Your task to perform on an android device: set the stopwatch Image 0: 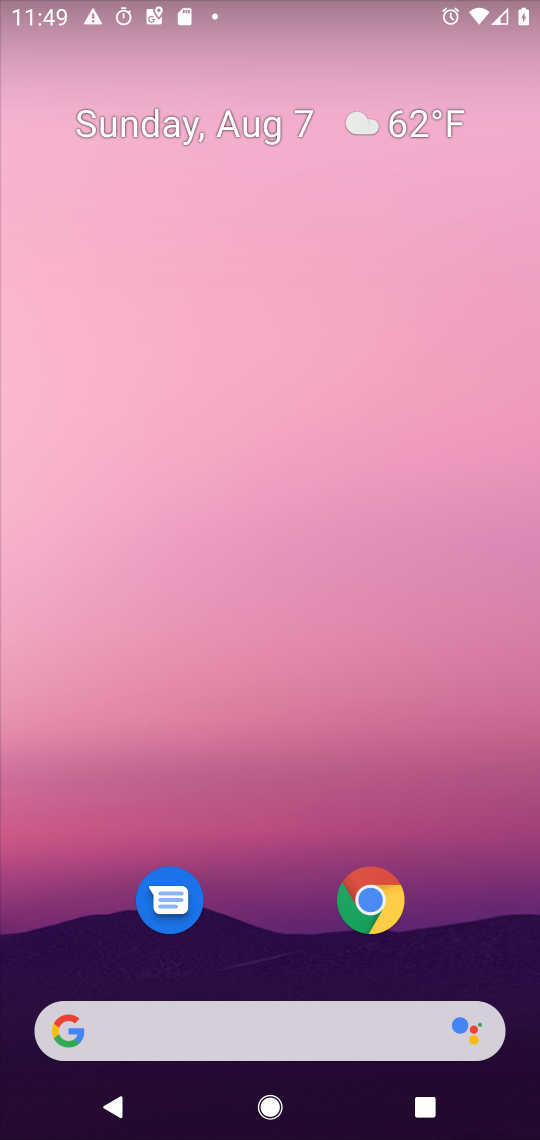
Step 0: press home button
Your task to perform on an android device: set the stopwatch Image 1: 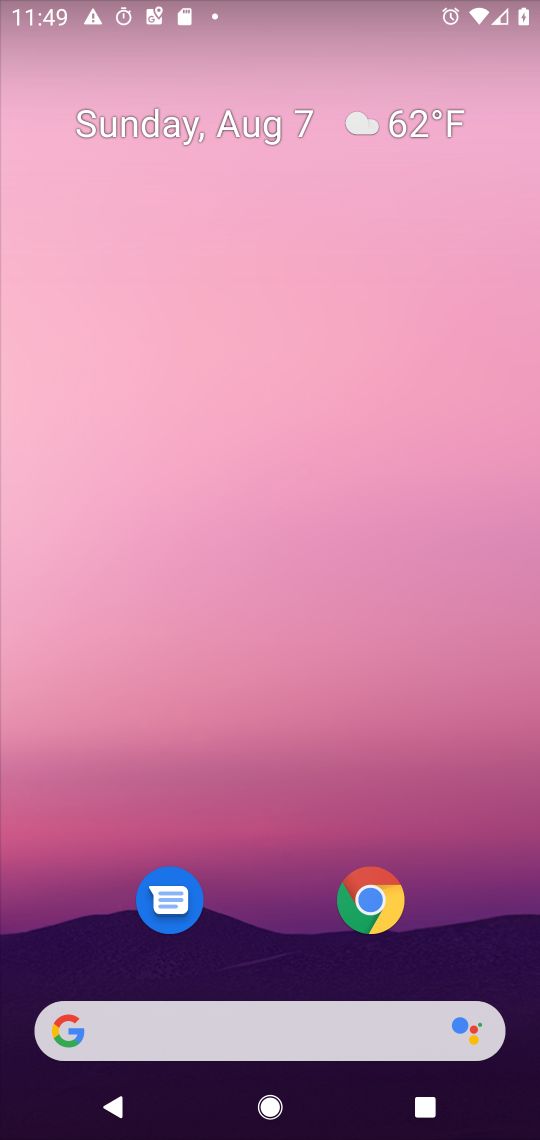
Step 1: drag from (277, 957) to (279, 5)
Your task to perform on an android device: set the stopwatch Image 2: 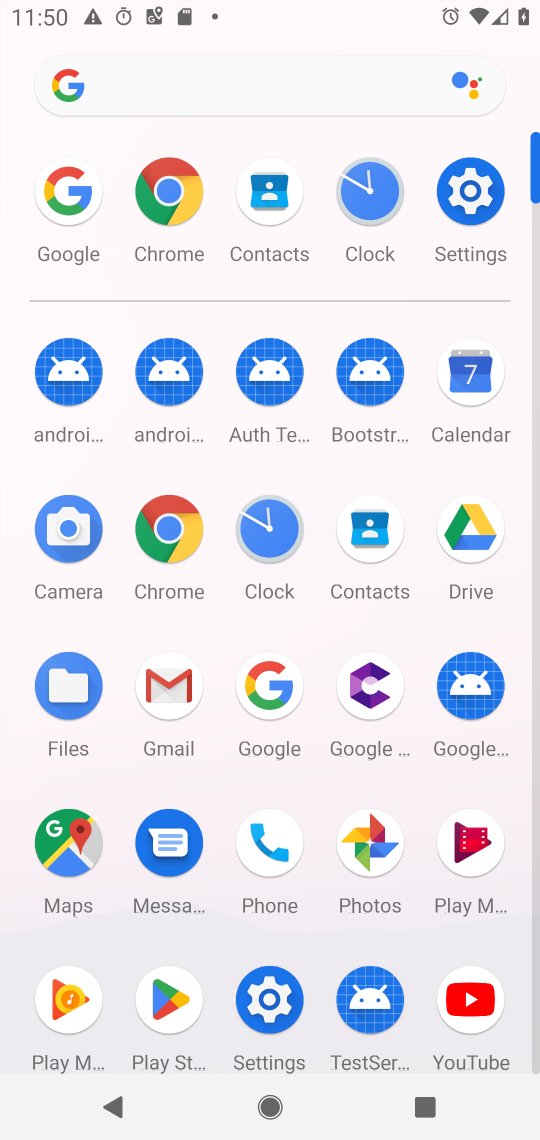
Step 2: click (265, 509)
Your task to perform on an android device: set the stopwatch Image 3: 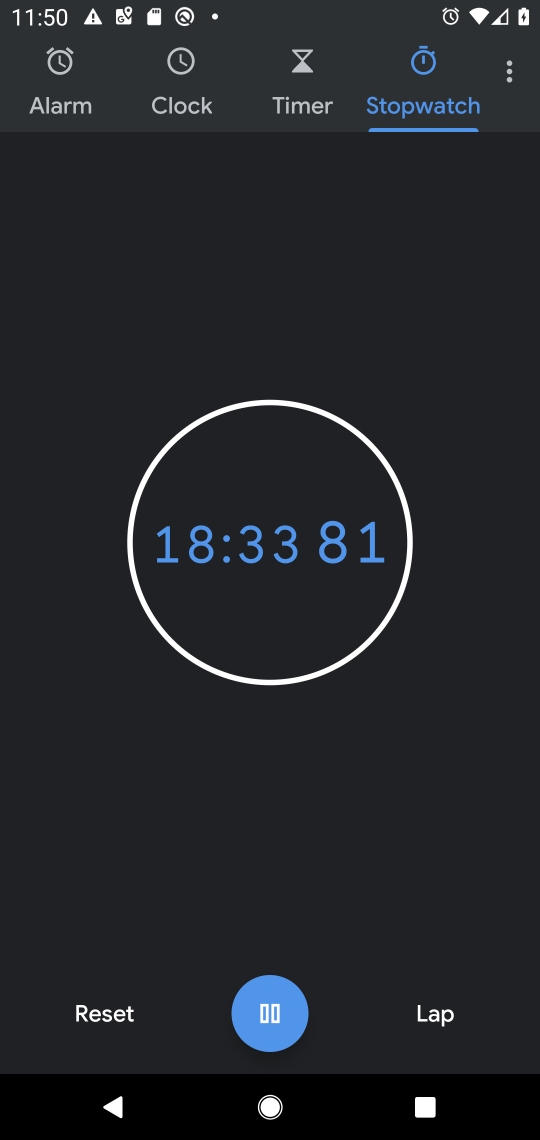
Step 3: click (90, 1010)
Your task to perform on an android device: set the stopwatch Image 4: 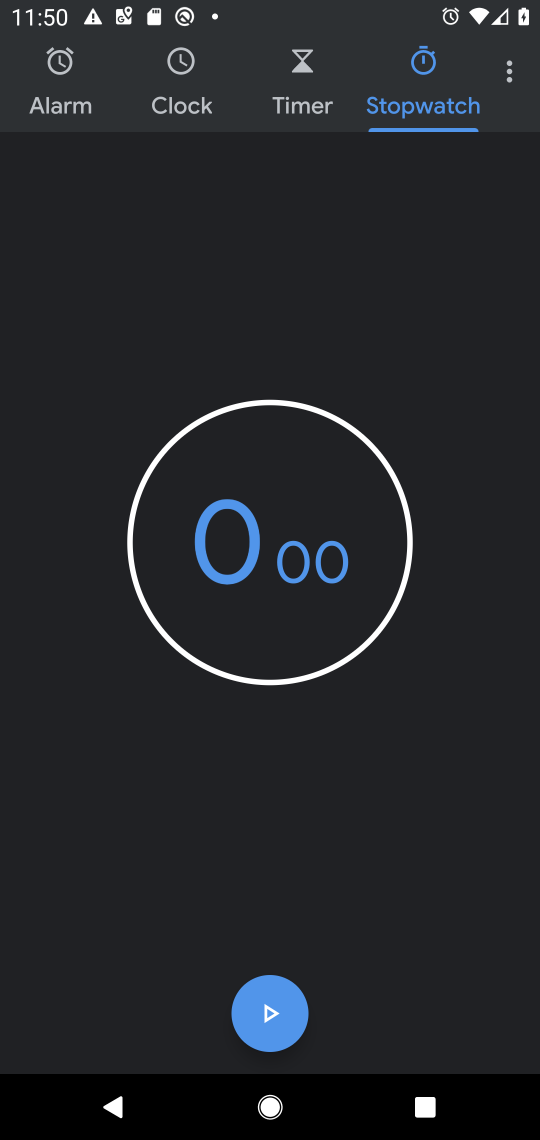
Step 4: click (263, 997)
Your task to perform on an android device: set the stopwatch Image 5: 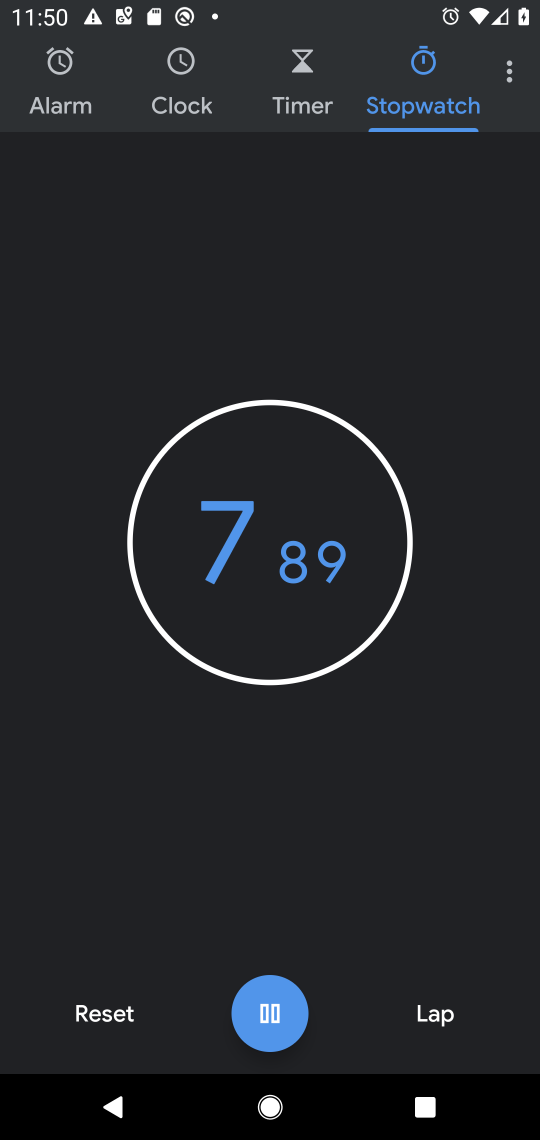
Step 5: task complete